Your task to perform on an android device: open app "Google Home" Image 0: 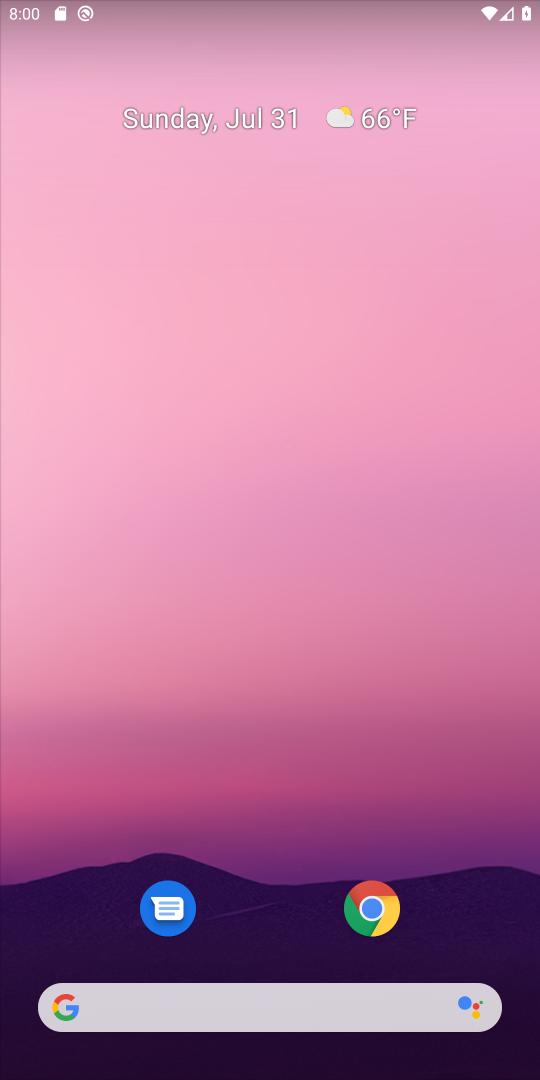
Step 0: drag from (388, 920) to (280, 18)
Your task to perform on an android device: open app "Google Home" Image 1: 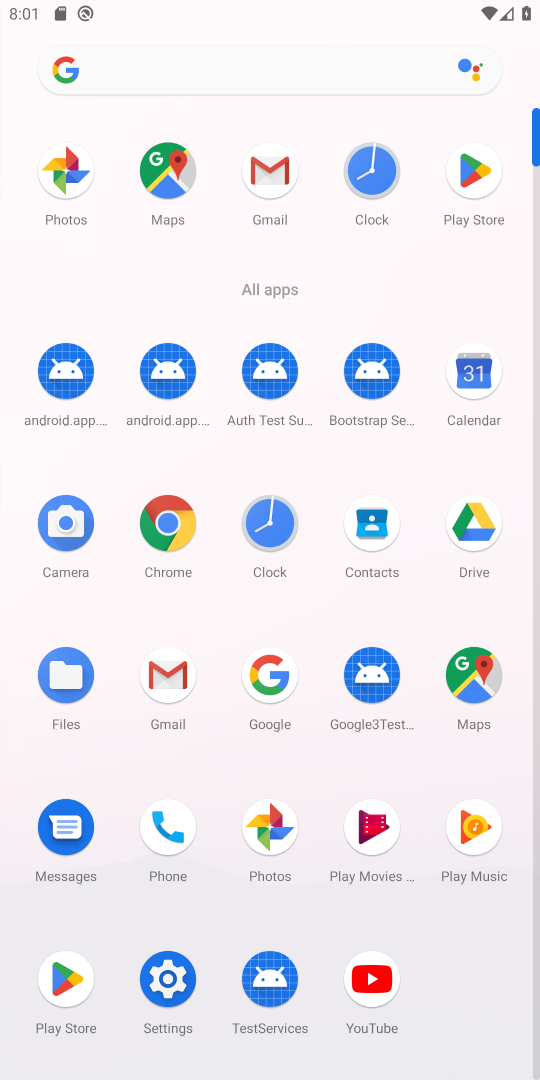
Step 1: click (65, 974)
Your task to perform on an android device: open app "Google Home" Image 2: 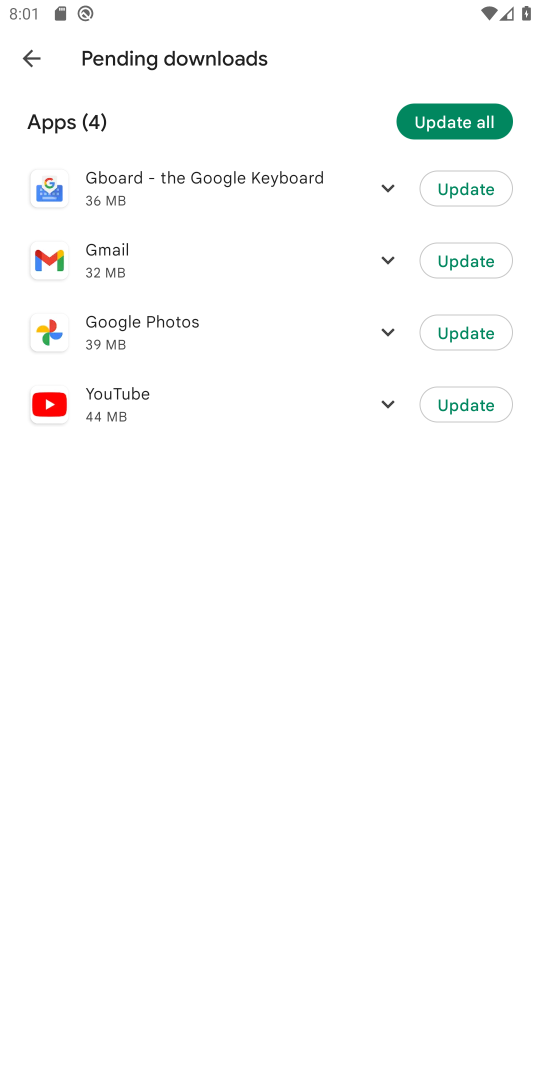
Step 2: click (13, 41)
Your task to perform on an android device: open app "Google Home" Image 3: 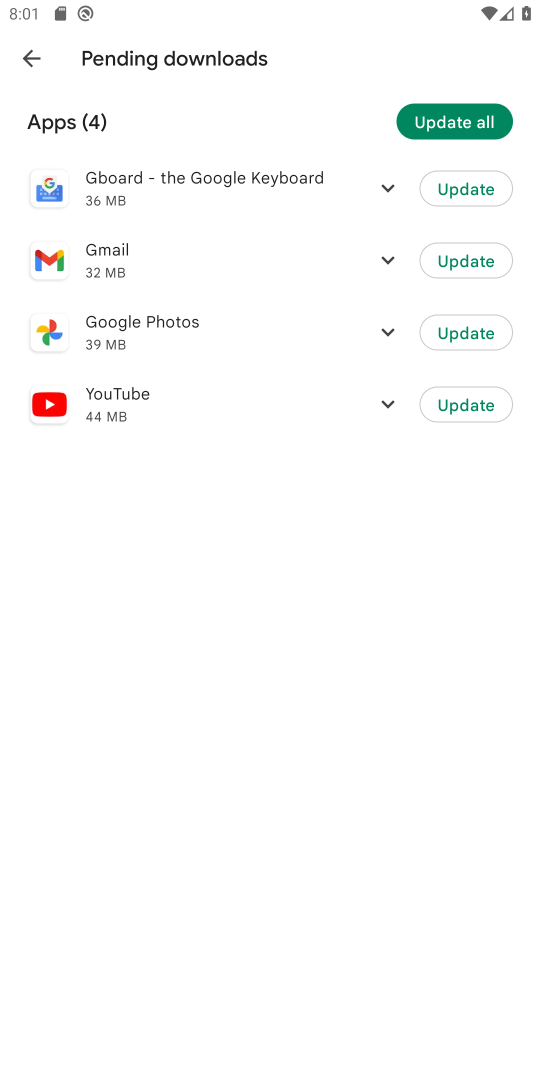
Step 3: click (42, 57)
Your task to perform on an android device: open app "Google Home" Image 4: 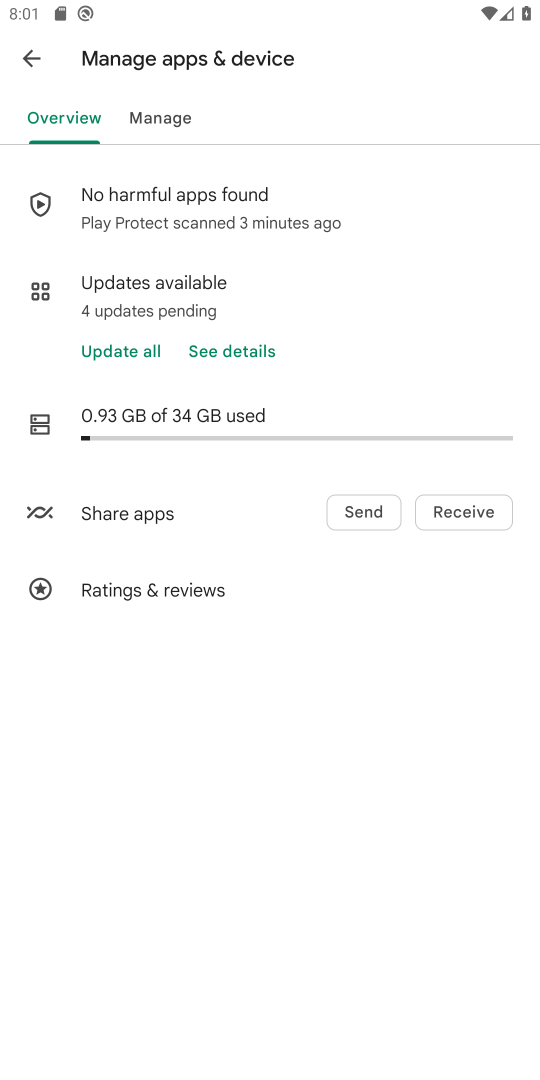
Step 4: click (33, 62)
Your task to perform on an android device: open app "Google Home" Image 5: 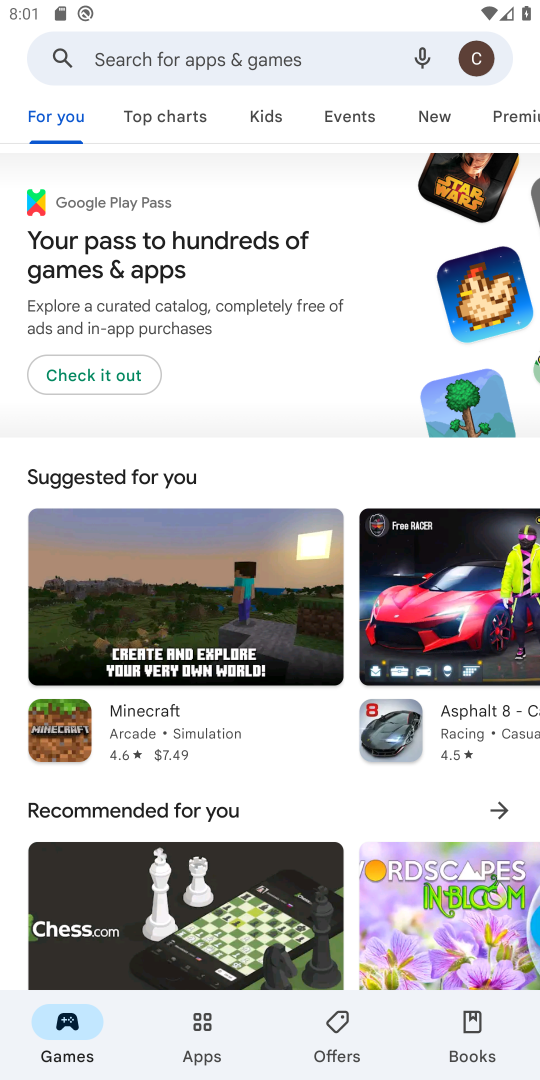
Step 5: click (304, 59)
Your task to perform on an android device: open app "Google Home" Image 6: 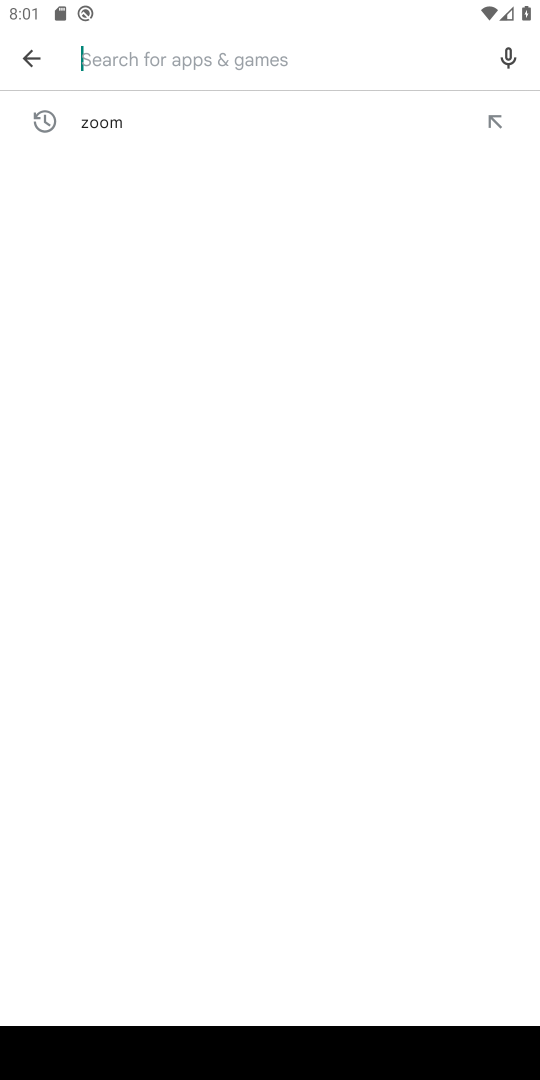
Step 6: type "google home"
Your task to perform on an android device: open app "Google Home" Image 7: 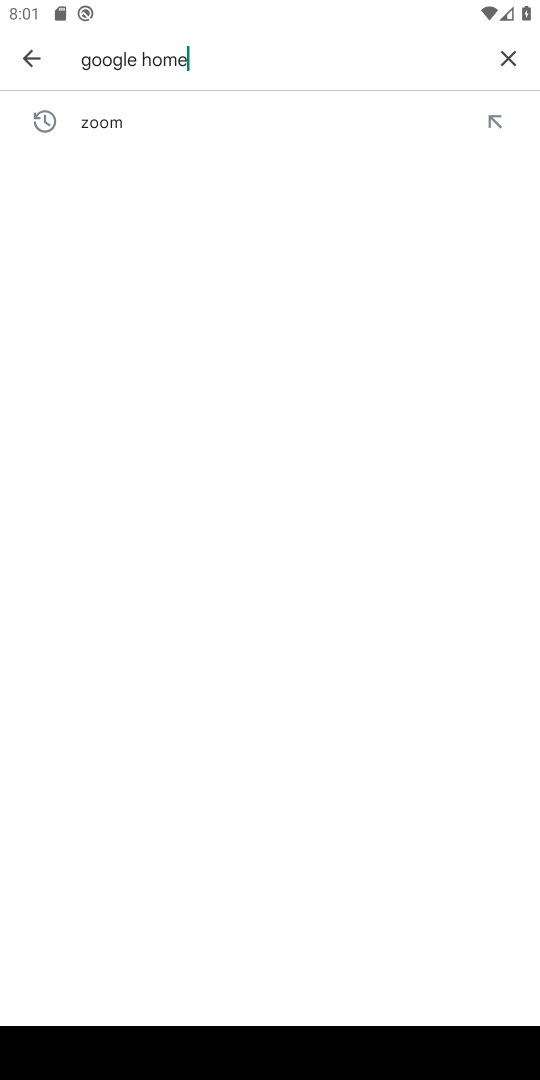
Step 7: type ""
Your task to perform on an android device: open app "Google Home" Image 8: 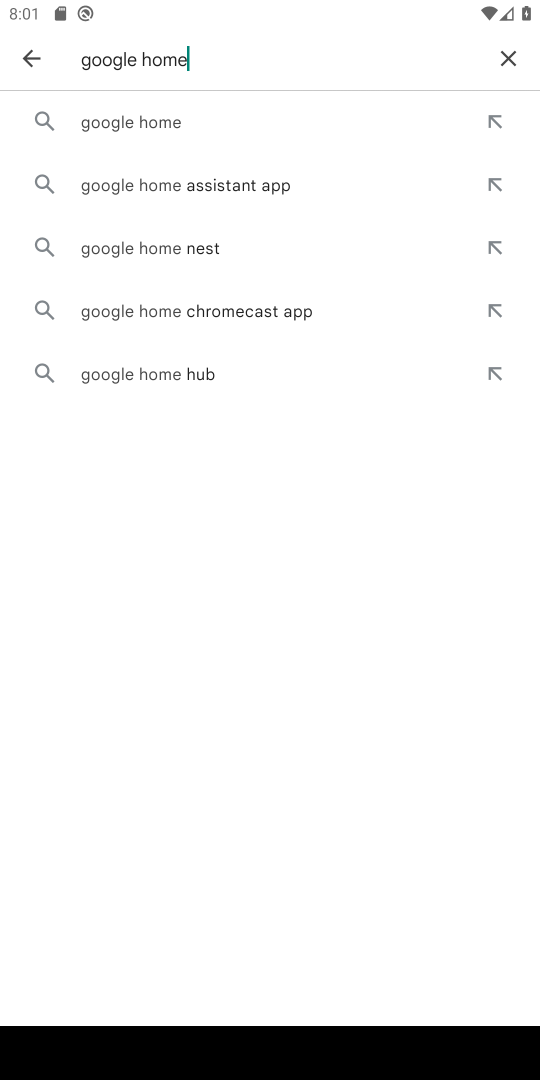
Step 8: click (282, 121)
Your task to perform on an android device: open app "Google Home" Image 9: 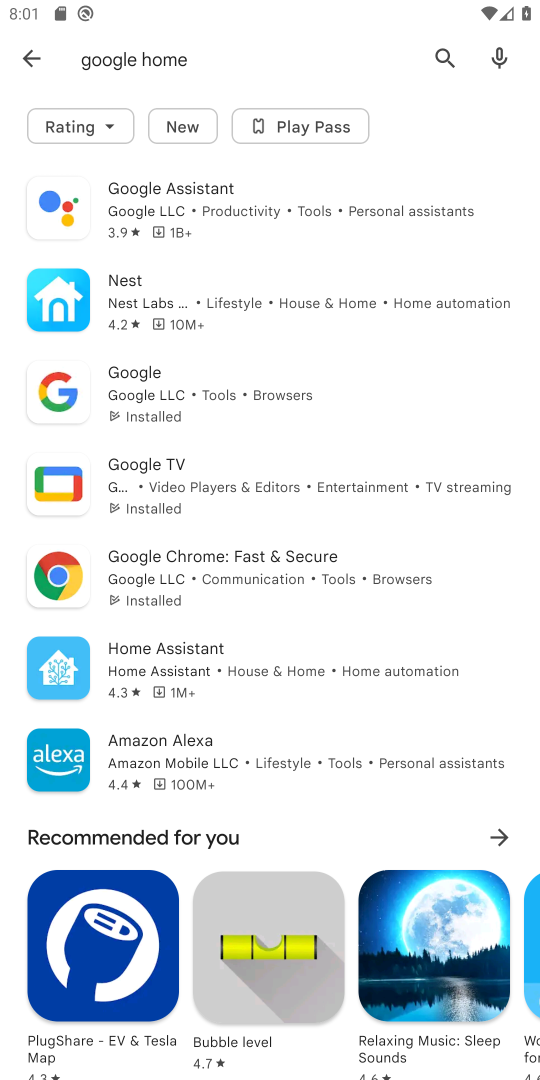
Step 9: task complete